Your task to perform on an android device: Open Maps and search for coffee Image 0: 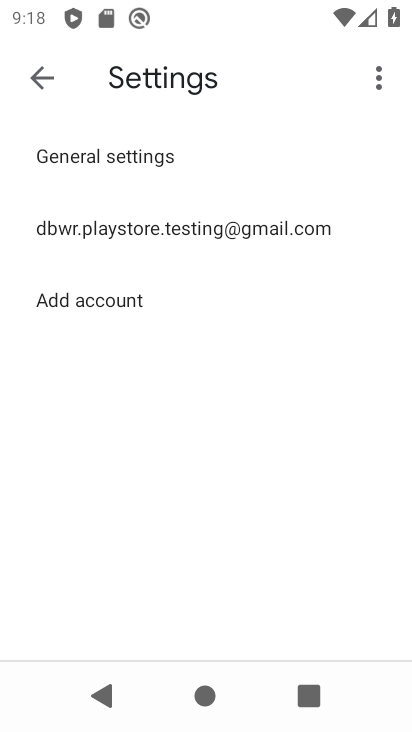
Step 0: press home button
Your task to perform on an android device: Open Maps and search for coffee Image 1: 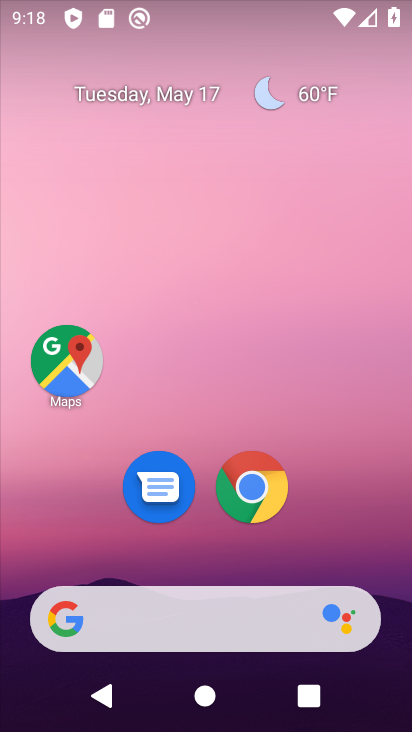
Step 1: click (60, 377)
Your task to perform on an android device: Open Maps and search for coffee Image 2: 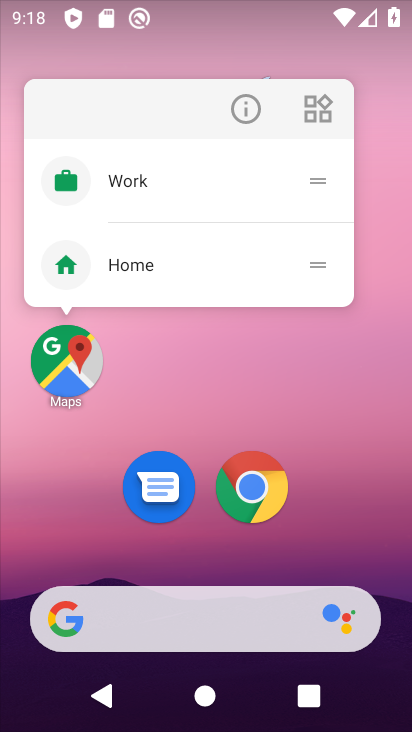
Step 2: click (60, 377)
Your task to perform on an android device: Open Maps and search for coffee Image 3: 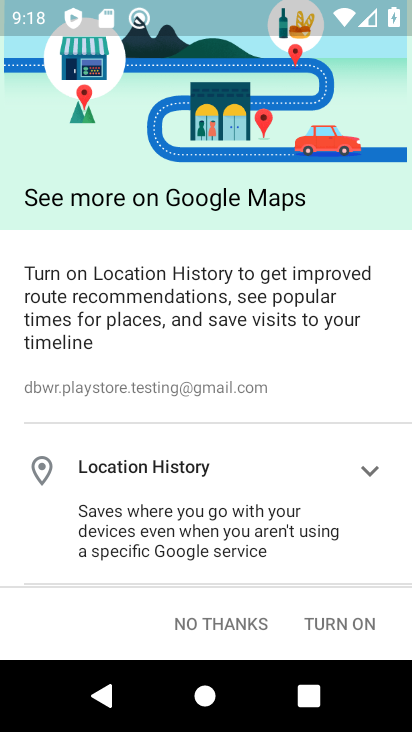
Step 3: click (213, 623)
Your task to perform on an android device: Open Maps and search for coffee Image 4: 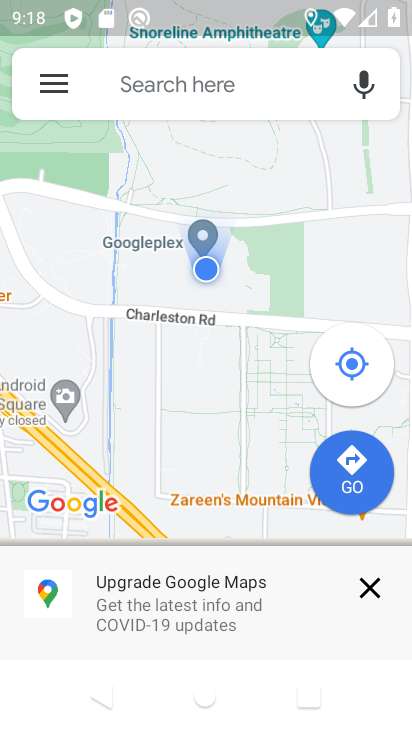
Step 4: click (369, 587)
Your task to perform on an android device: Open Maps and search for coffee Image 5: 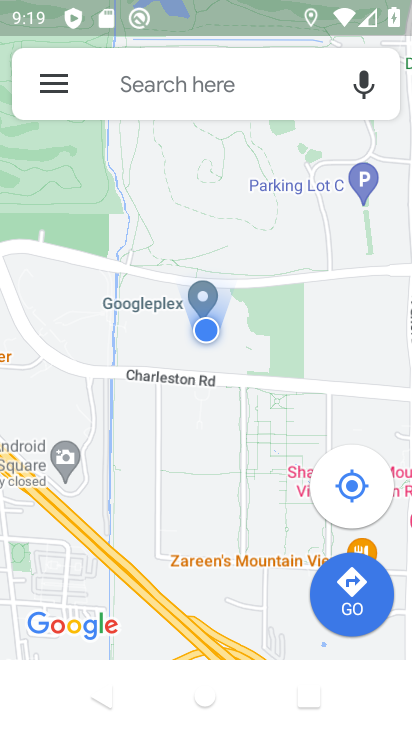
Step 5: click (227, 100)
Your task to perform on an android device: Open Maps and search for coffee Image 6: 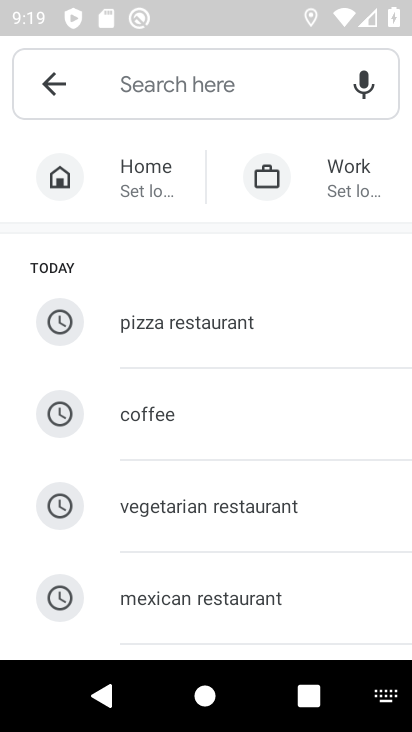
Step 6: type "coffee"
Your task to perform on an android device: Open Maps and search for coffee Image 7: 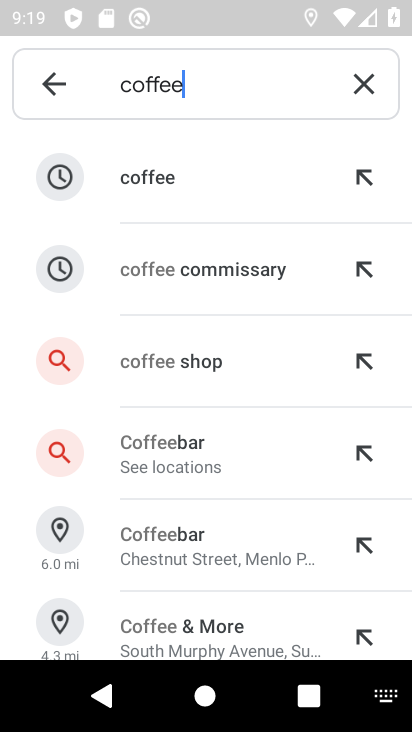
Step 7: click (177, 191)
Your task to perform on an android device: Open Maps and search for coffee Image 8: 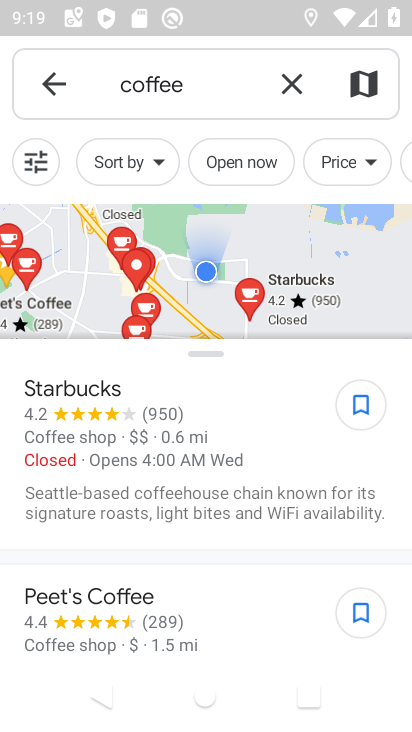
Step 8: task complete